Your task to perform on an android device: change the upload size in google photos Image 0: 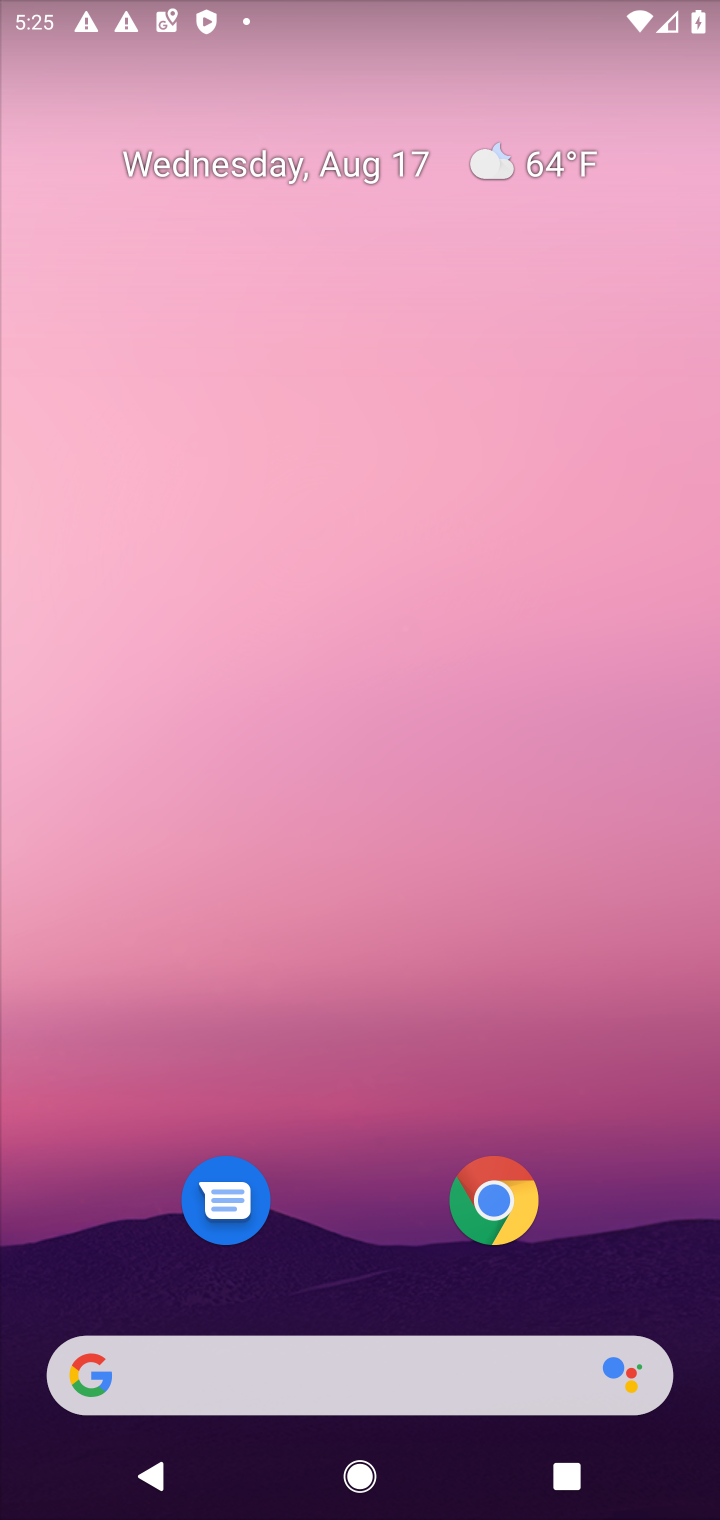
Step 0: drag from (387, 1214) to (421, 137)
Your task to perform on an android device: change the upload size in google photos Image 1: 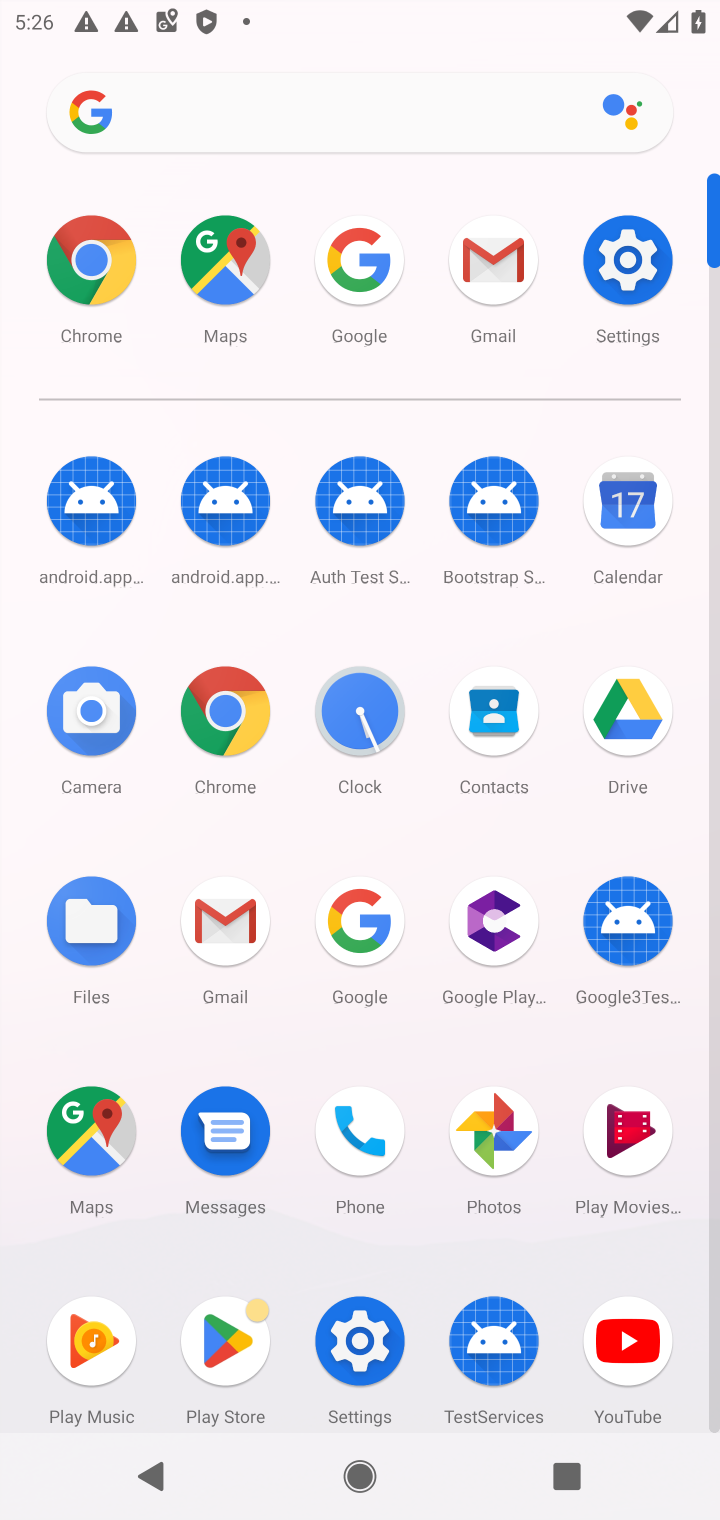
Step 1: click (483, 1147)
Your task to perform on an android device: change the upload size in google photos Image 2: 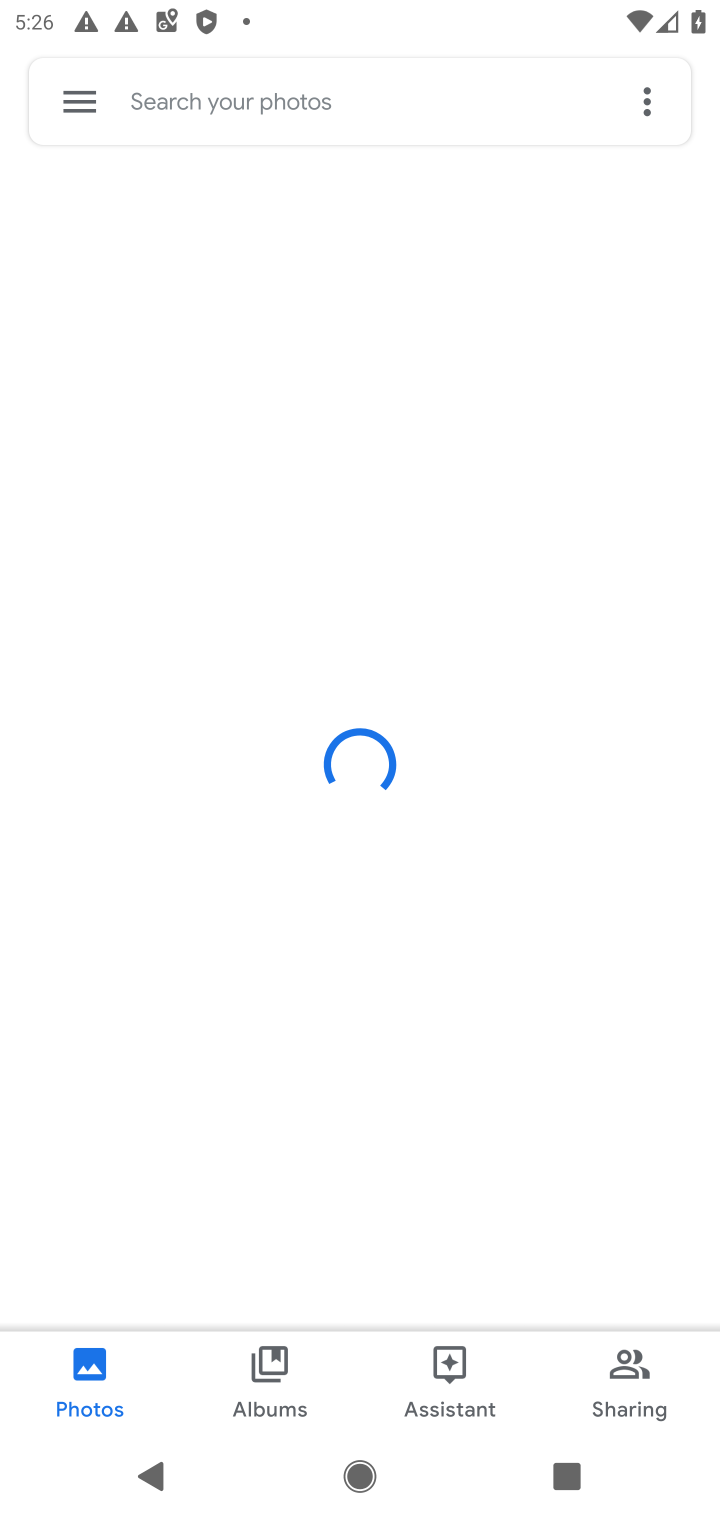
Step 2: click (77, 94)
Your task to perform on an android device: change the upload size in google photos Image 3: 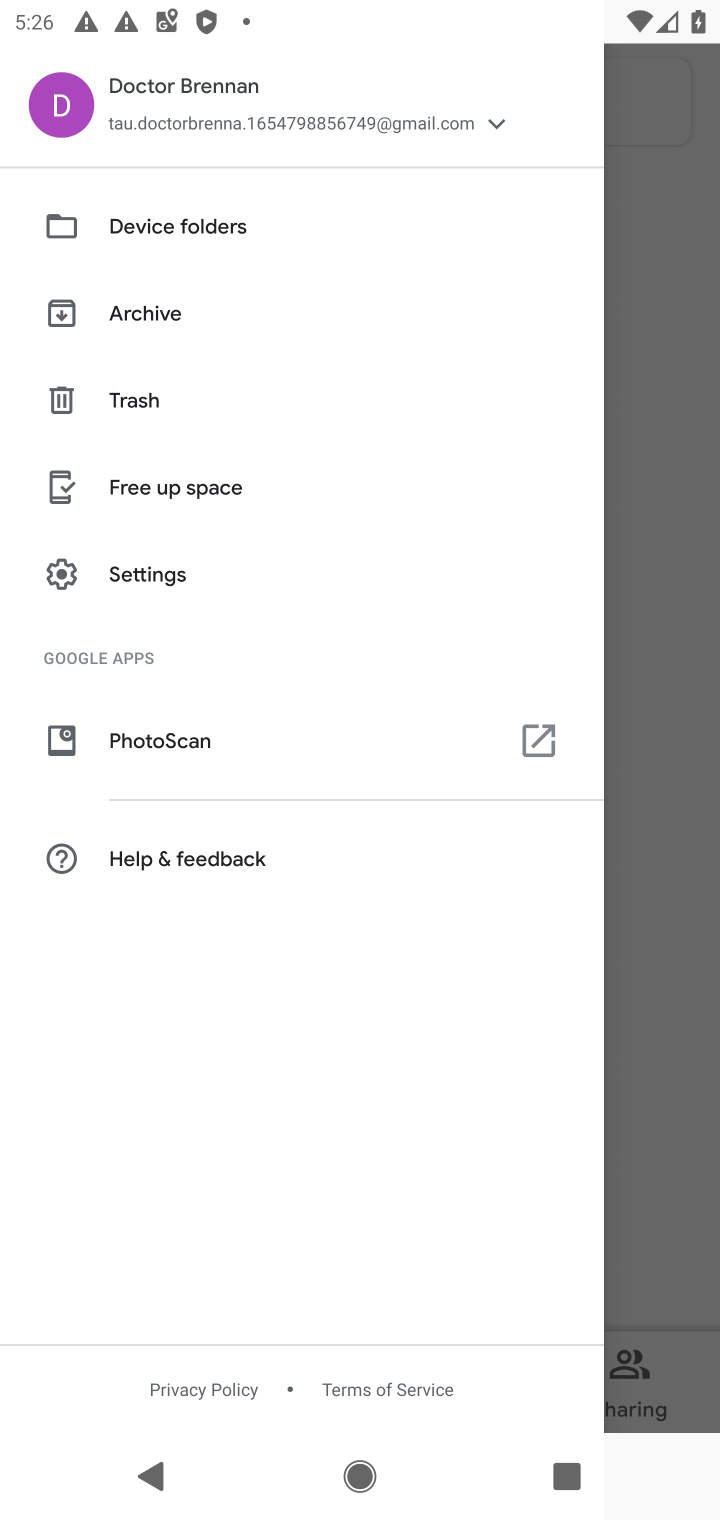
Step 3: click (110, 570)
Your task to perform on an android device: change the upload size in google photos Image 4: 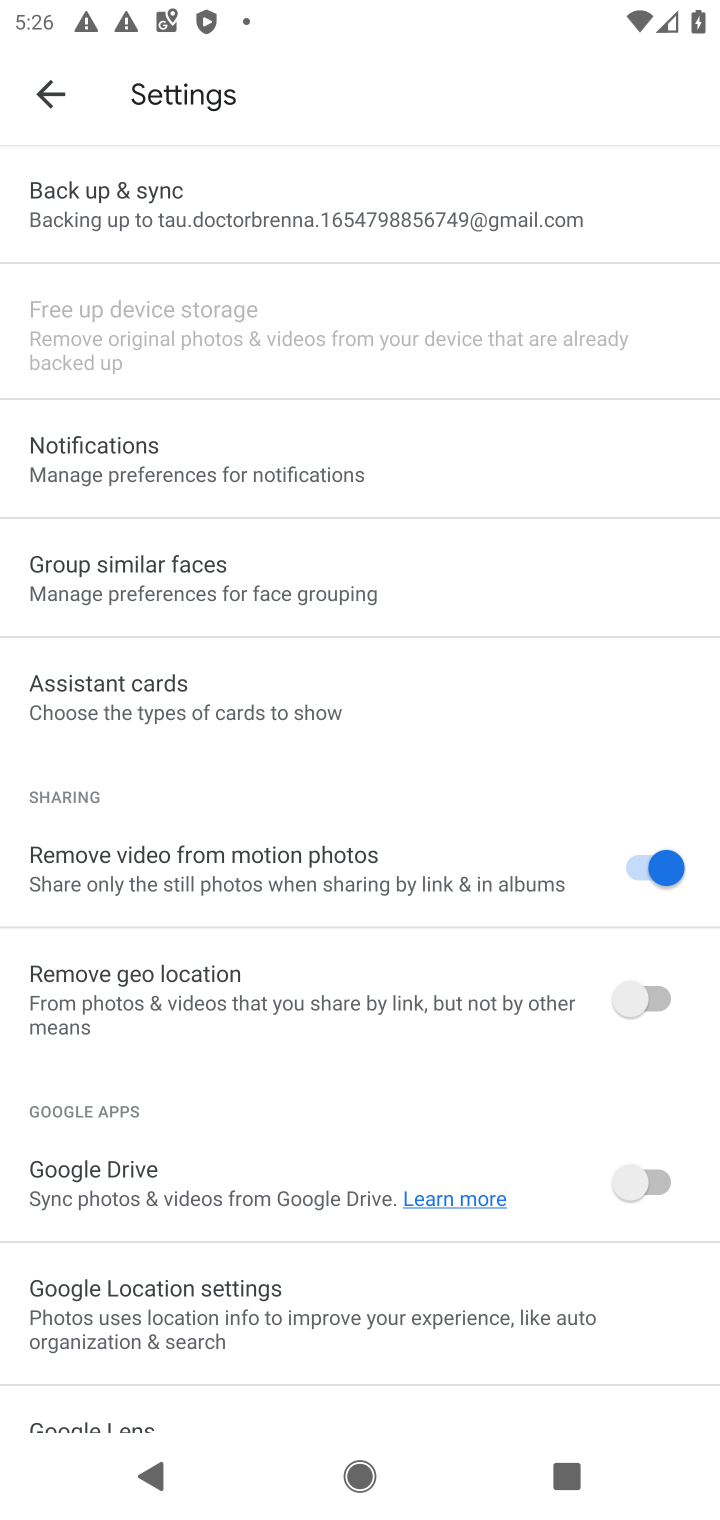
Step 4: click (90, 191)
Your task to perform on an android device: change the upload size in google photos Image 5: 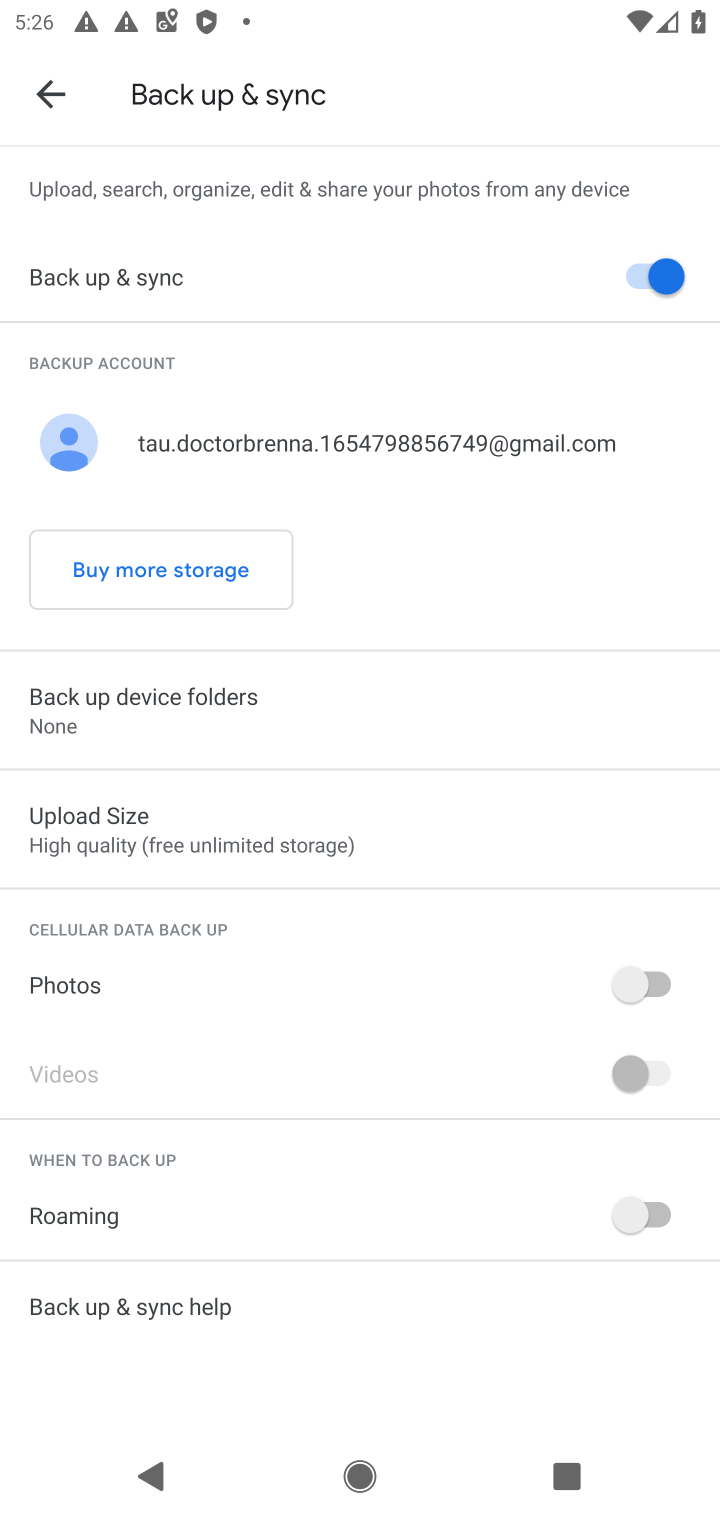
Step 5: click (108, 821)
Your task to perform on an android device: change the upload size in google photos Image 6: 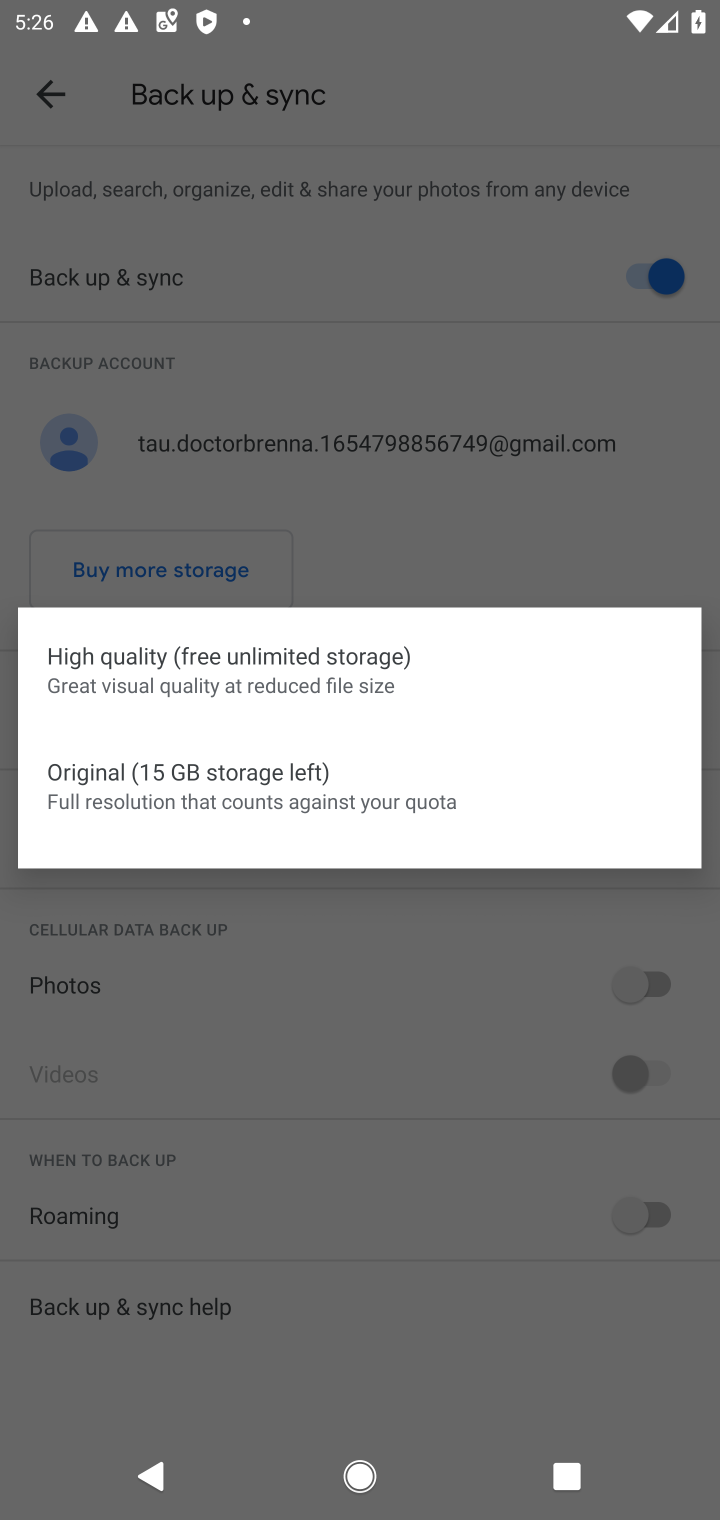
Step 6: click (108, 796)
Your task to perform on an android device: change the upload size in google photos Image 7: 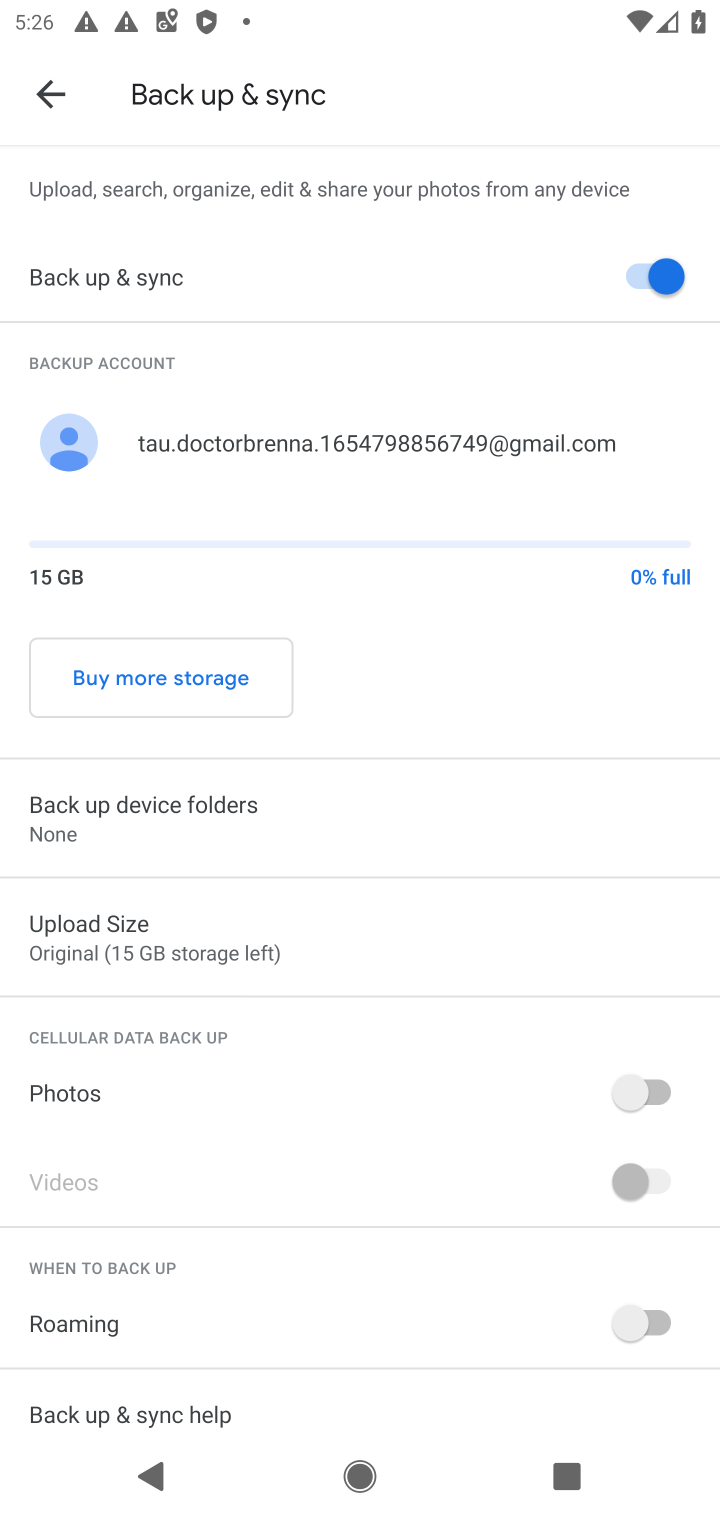
Step 7: task complete